Your task to perform on an android device: set default search engine in the chrome app Image 0: 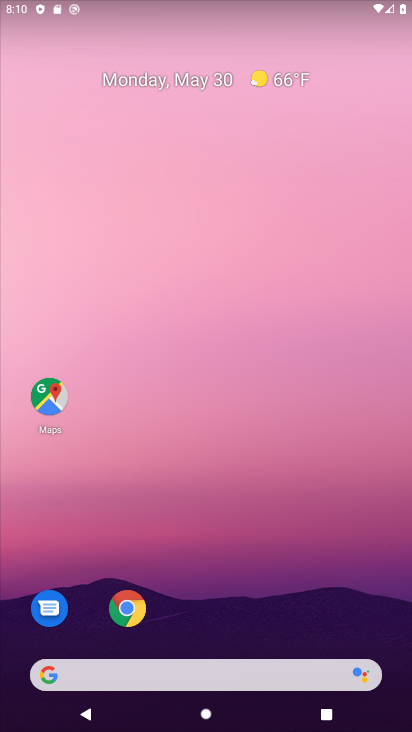
Step 0: drag from (227, 717) to (203, 124)
Your task to perform on an android device: set default search engine in the chrome app Image 1: 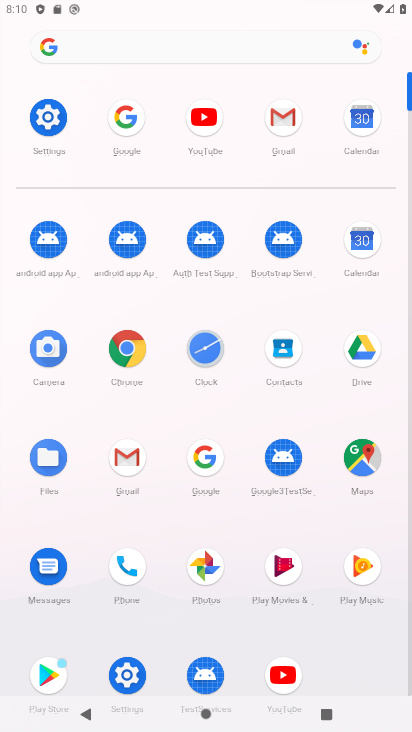
Step 1: click (124, 343)
Your task to perform on an android device: set default search engine in the chrome app Image 2: 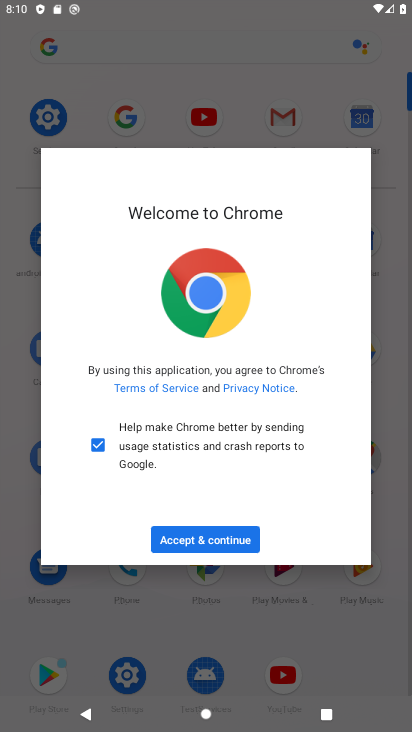
Step 2: click (204, 541)
Your task to perform on an android device: set default search engine in the chrome app Image 3: 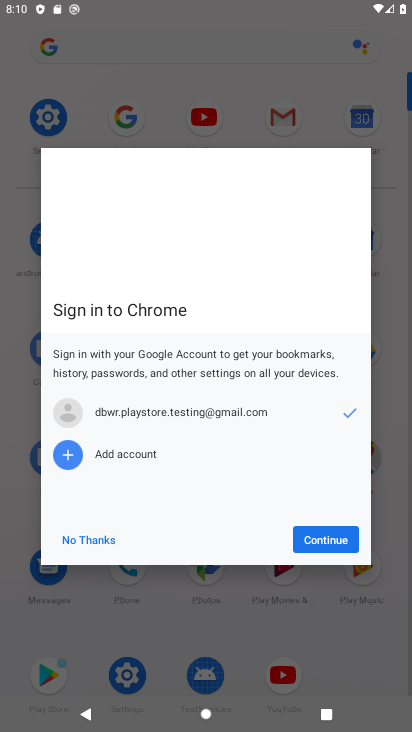
Step 3: click (303, 540)
Your task to perform on an android device: set default search engine in the chrome app Image 4: 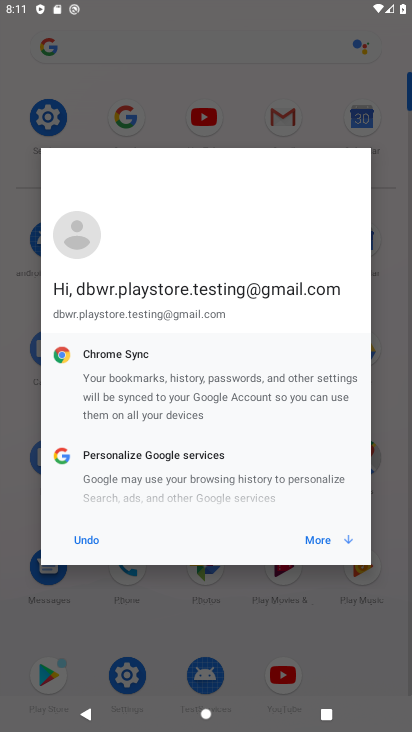
Step 4: click (314, 537)
Your task to perform on an android device: set default search engine in the chrome app Image 5: 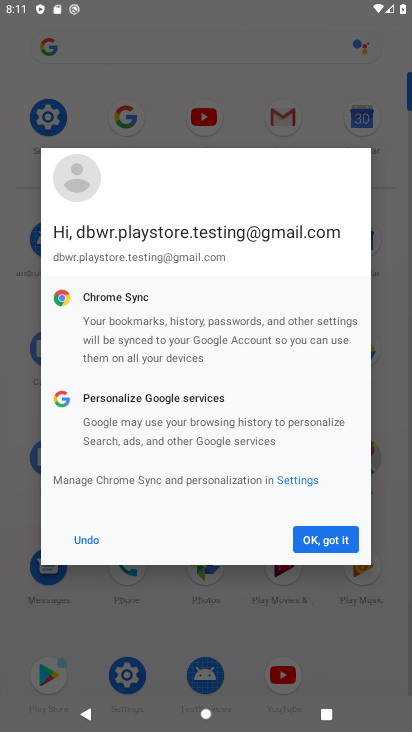
Step 5: click (325, 541)
Your task to perform on an android device: set default search engine in the chrome app Image 6: 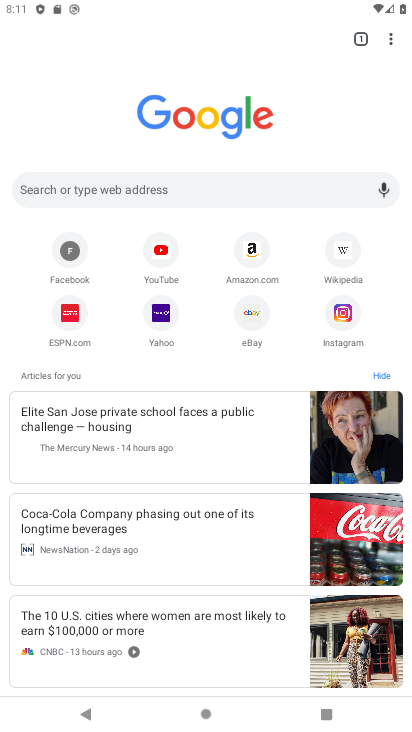
Step 6: click (391, 46)
Your task to perform on an android device: set default search engine in the chrome app Image 7: 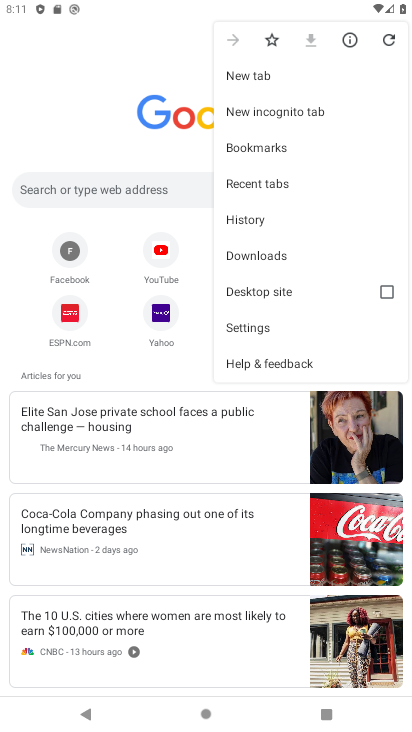
Step 7: click (257, 327)
Your task to perform on an android device: set default search engine in the chrome app Image 8: 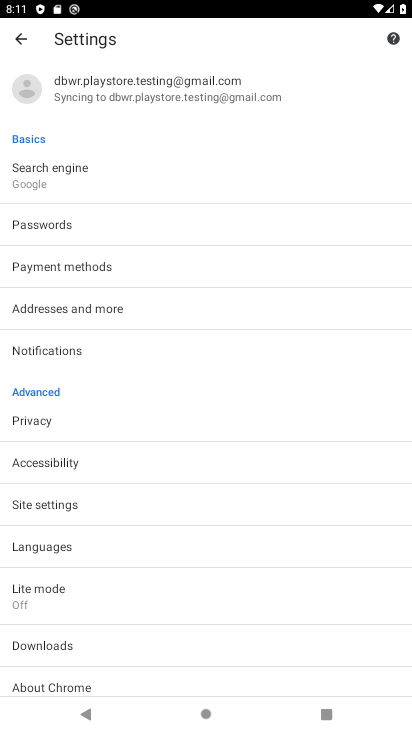
Step 8: click (52, 176)
Your task to perform on an android device: set default search engine in the chrome app Image 9: 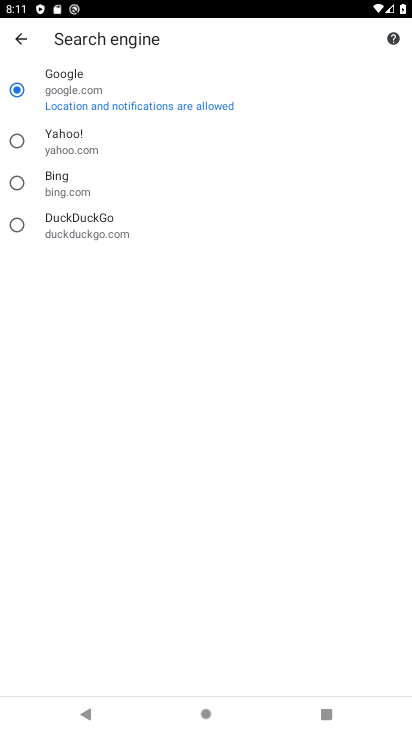
Step 9: click (15, 141)
Your task to perform on an android device: set default search engine in the chrome app Image 10: 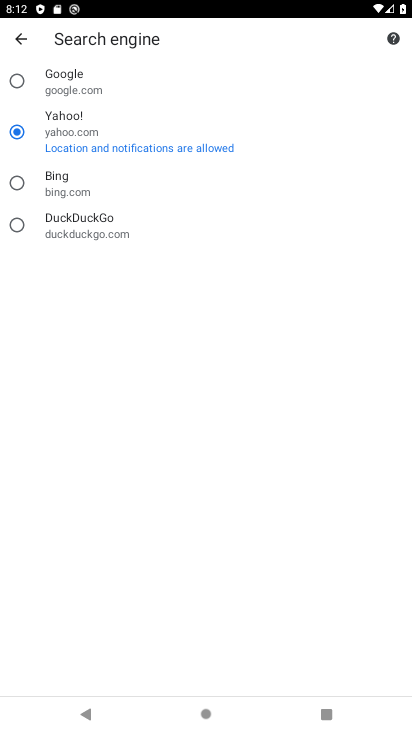
Step 10: task complete